Your task to perform on an android device: Search for the new Apple Watch on Best Buy Image 0: 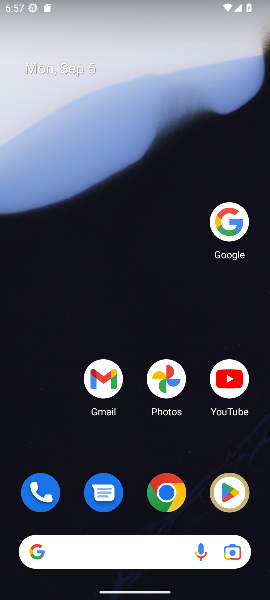
Step 0: click (235, 208)
Your task to perform on an android device: Search for the new Apple Watch on Best Buy Image 1: 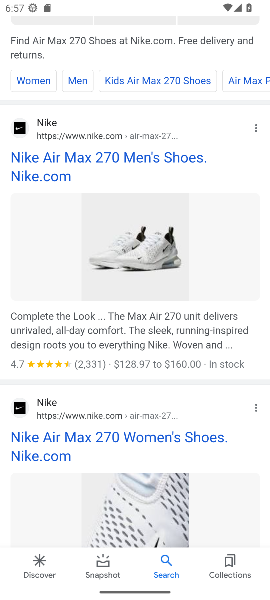
Step 1: drag from (129, 194) to (114, 514)
Your task to perform on an android device: Search for the new Apple Watch on Best Buy Image 2: 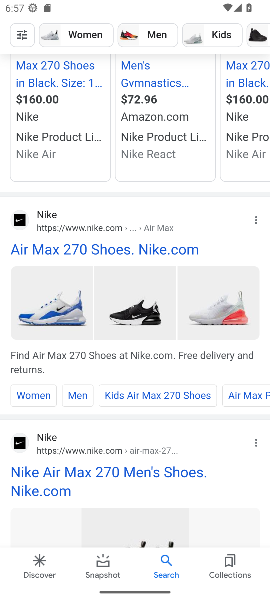
Step 2: drag from (129, 90) to (99, 508)
Your task to perform on an android device: Search for the new Apple Watch on Best Buy Image 3: 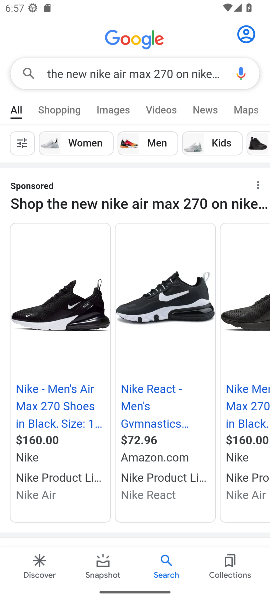
Step 3: click (129, 63)
Your task to perform on an android device: Search for the new Apple Watch on Best Buy Image 4: 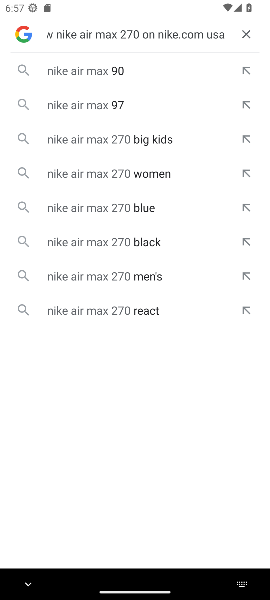
Step 4: click (250, 31)
Your task to perform on an android device: Search for the new Apple Watch on Best Buy Image 5: 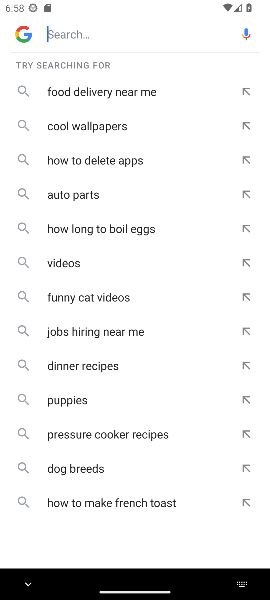
Step 5: click (122, 30)
Your task to perform on an android device: Search for the new Apple Watch on Best Buy Image 6: 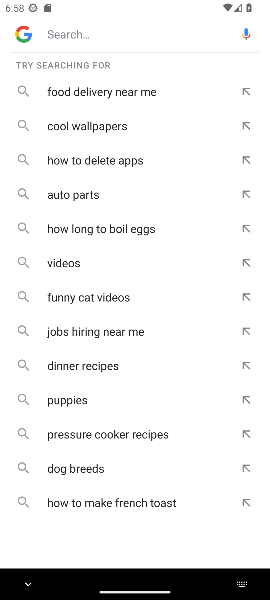
Step 6: type "the new Apple Watch on Best Buy "
Your task to perform on an android device: Search for the new Apple Watch on Best Buy Image 7: 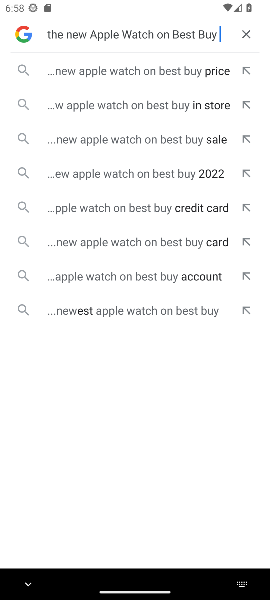
Step 7: click (126, 66)
Your task to perform on an android device: Search for the new Apple Watch on Best Buy Image 8: 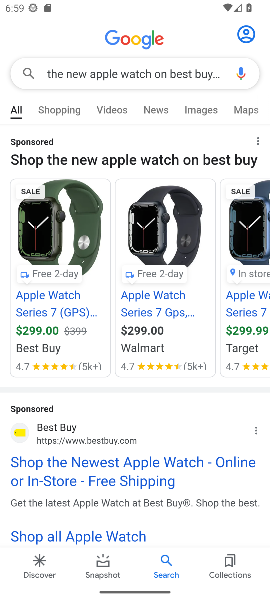
Step 8: task complete